Your task to perform on an android device: turn on translation in the chrome app Image 0: 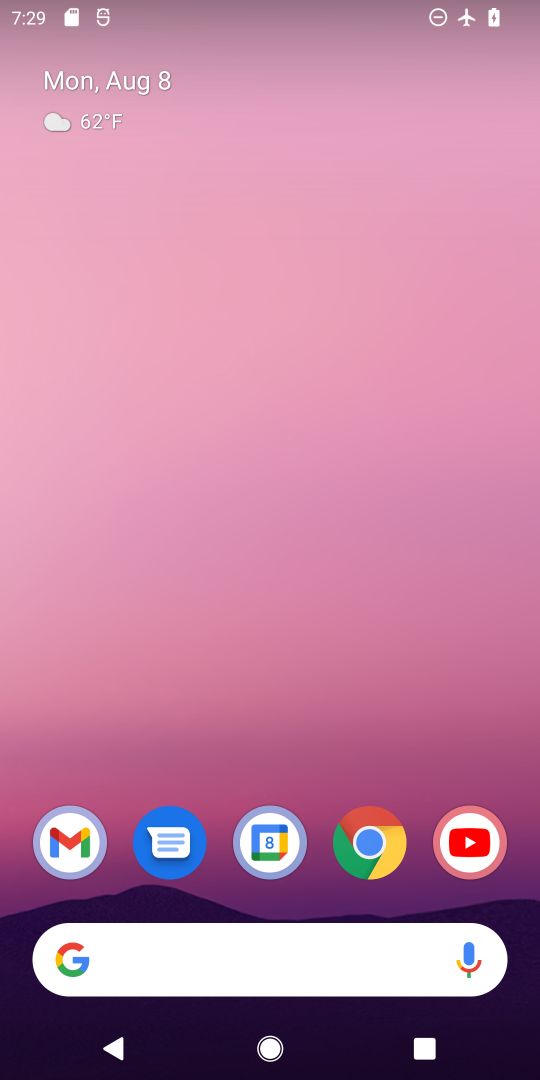
Step 0: click (390, 851)
Your task to perform on an android device: turn on translation in the chrome app Image 1: 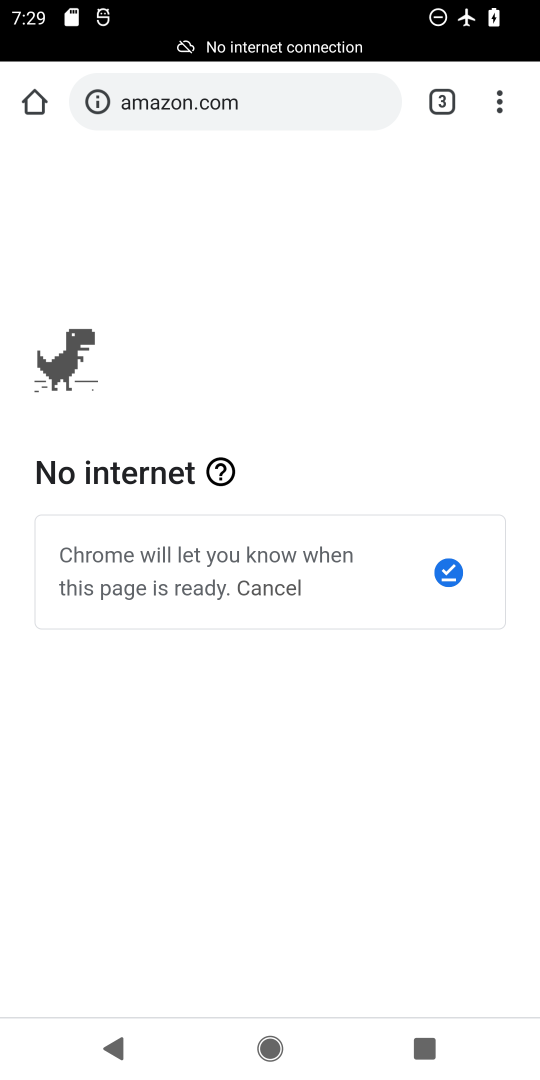
Step 1: drag from (504, 100) to (259, 882)
Your task to perform on an android device: turn on translation in the chrome app Image 2: 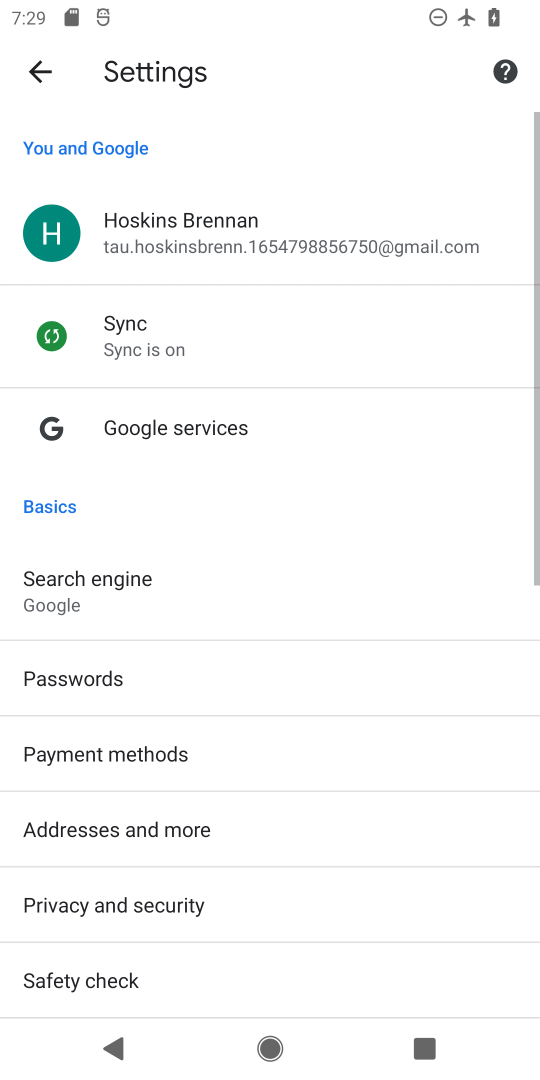
Step 2: drag from (217, 812) to (229, 113)
Your task to perform on an android device: turn on translation in the chrome app Image 3: 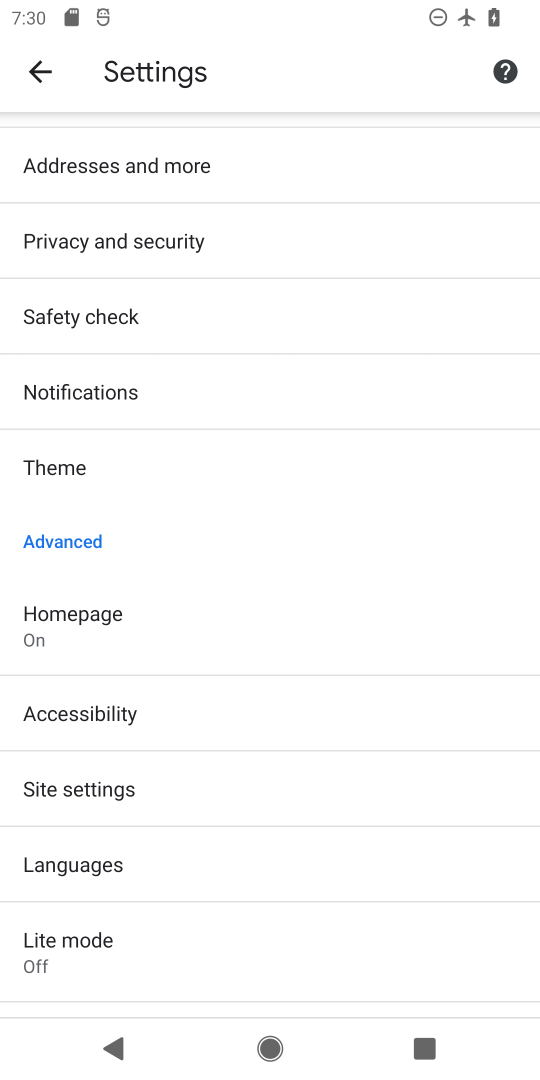
Step 3: click (103, 876)
Your task to perform on an android device: turn on translation in the chrome app Image 4: 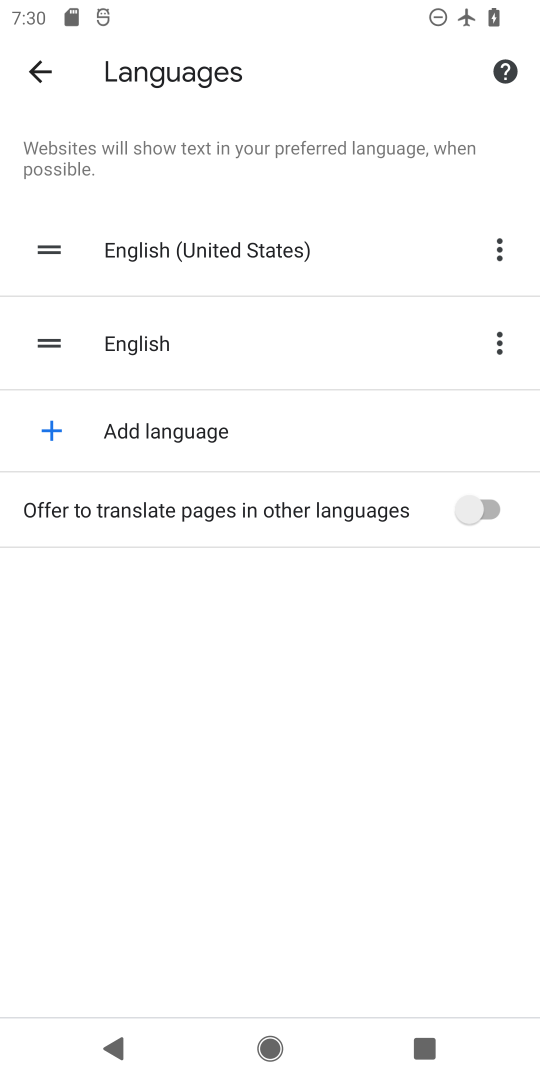
Step 4: click (484, 509)
Your task to perform on an android device: turn on translation in the chrome app Image 5: 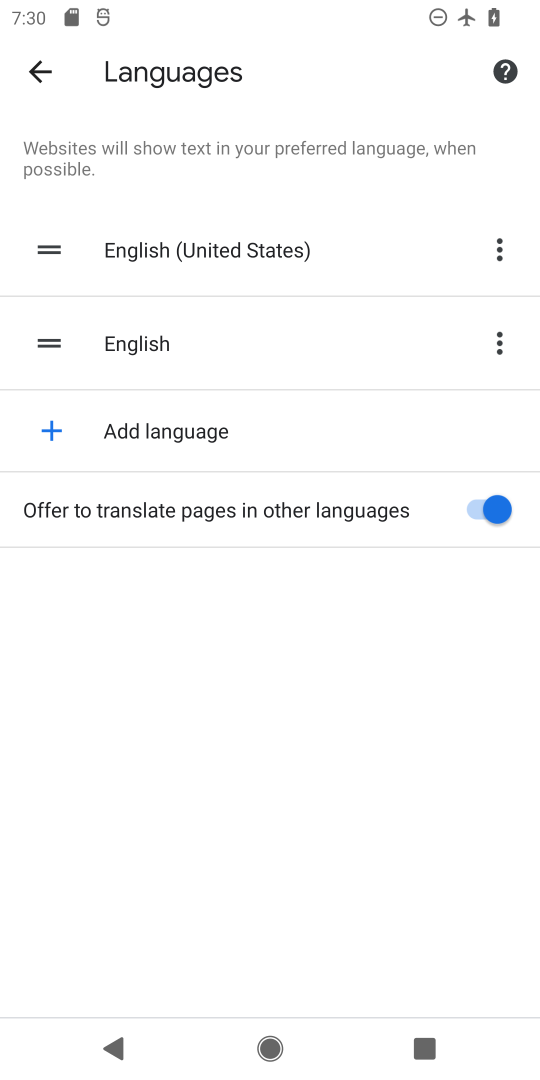
Step 5: task complete